Your task to perform on an android device: set an alarm Image 0: 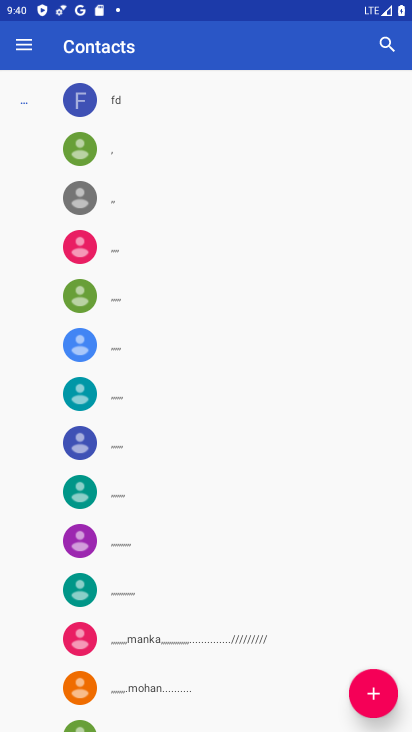
Step 0: press home button
Your task to perform on an android device: set an alarm Image 1: 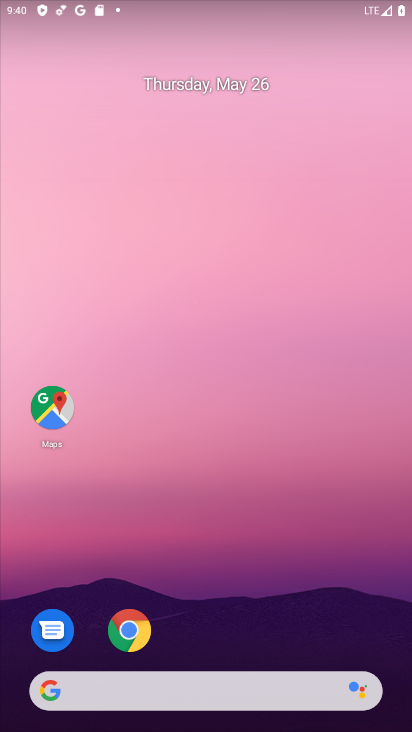
Step 1: drag from (202, 654) to (186, 129)
Your task to perform on an android device: set an alarm Image 2: 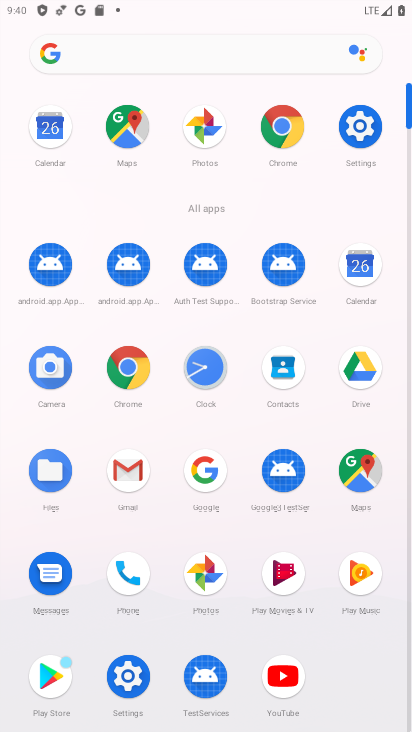
Step 2: click (197, 364)
Your task to perform on an android device: set an alarm Image 3: 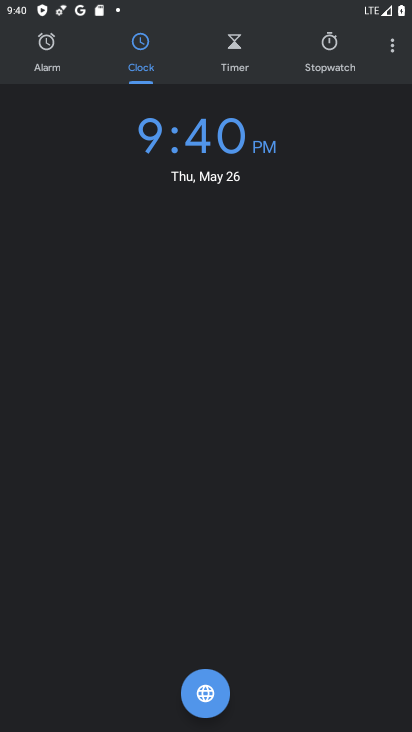
Step 3: click (51, 53)
Your task to perform on an android device: set an alarm Image 4: 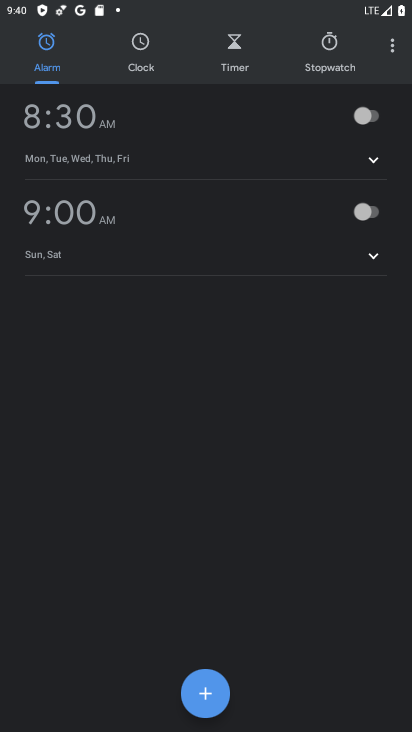
Step 4: click (215, 697)
Your task to perform on an android device: set an alarm Image 5: 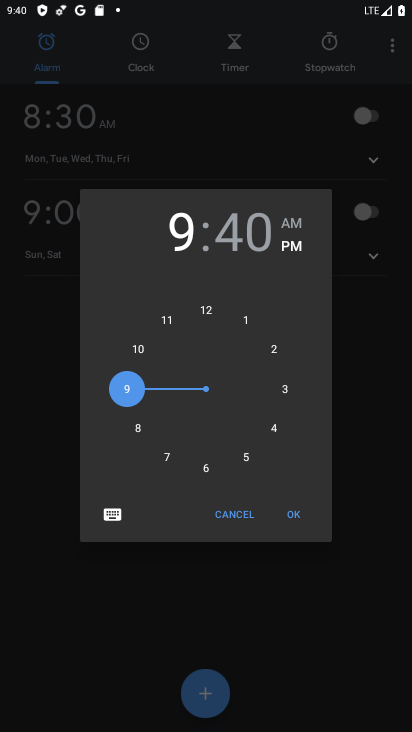
Step 5: click (288, 525)
Your task to perform on an android device: set an alarm Image 6: 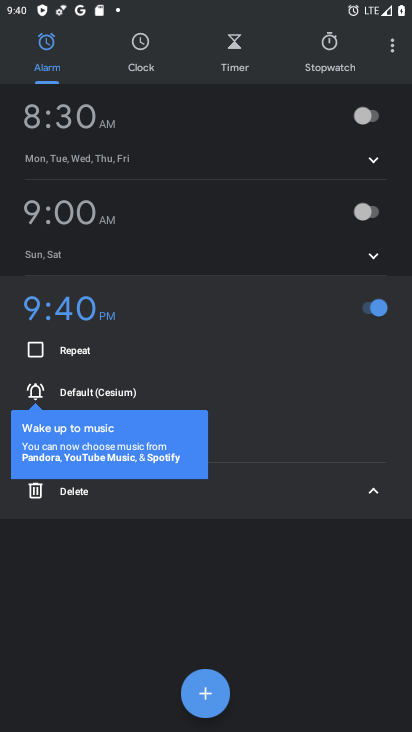
Step 6: task complete